Your task to perform on an android device: Open Google Chrome and click the shortcut for Amazon.com Image 0: 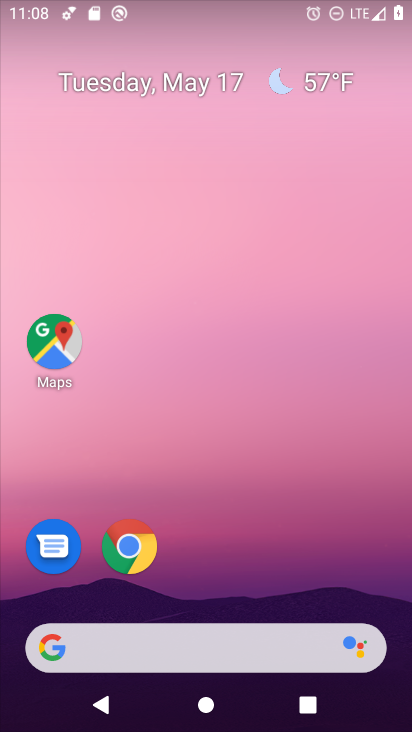
Step 0: click (128, 547)
Your task to perform on an android device: Open Google Chrome and click the shortcut for Amazon.com Image 1: 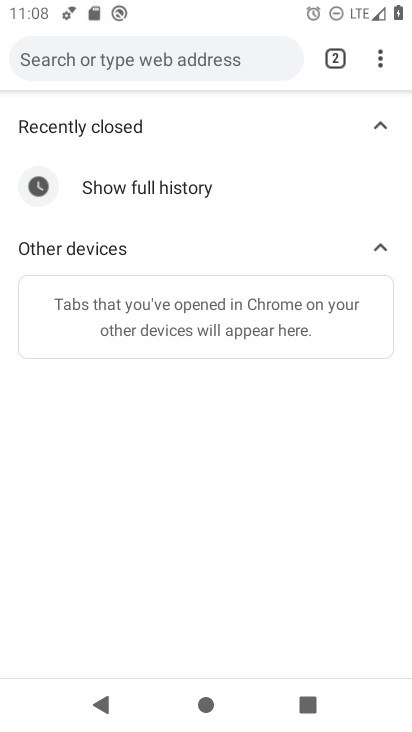
Step 1: click (381, 63)
Your task to perform on an android device: Open Google Chrome and click the shortcut for Amazon.com Image 2: 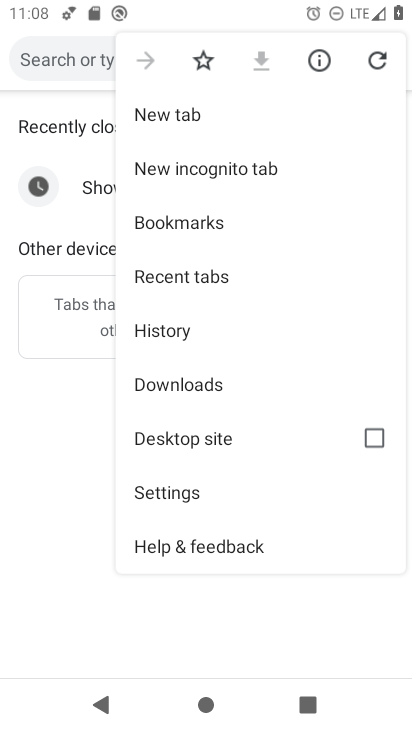
Step 2: click (139, 111)
Your task to perform on an android device: Open Google Chrome and click the shortcut for Amazon.com Image 3: 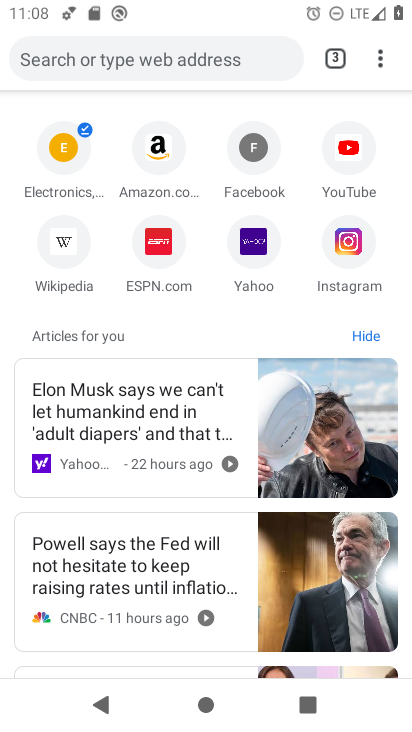
Step 3: click (166, 164)
Your task to perform on an android device: Open Google Chrome and click the shortcut for Amazon.com Image 4: 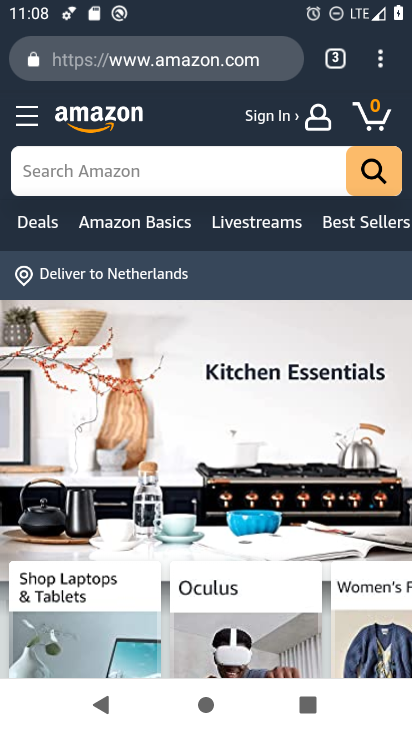
Step 4: task complete